Your task to perform on an android device: Open the phone app and click the voicemail tab. Image 0: 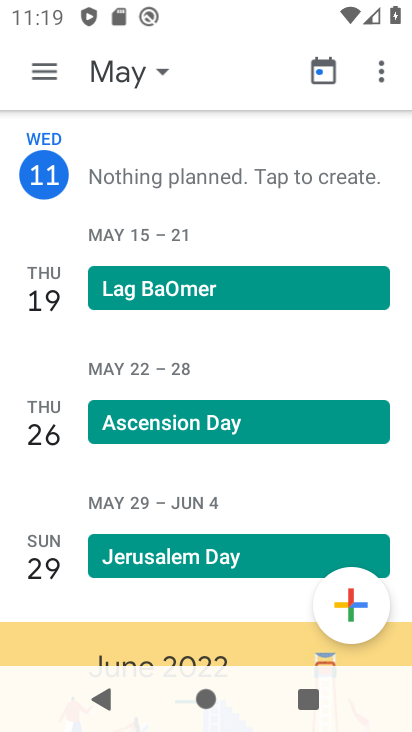
Step 0: press back button
Your task to perform on an android device: Open the phone app and click the voicemail tab. Image 1: 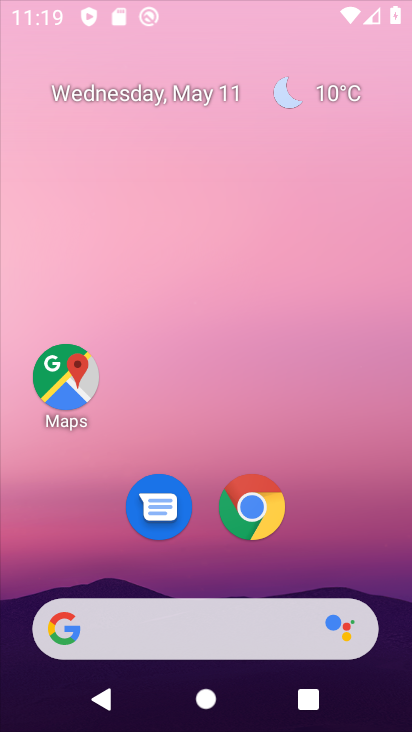
Step 1: press home button
Your task to perform on an android device: Open the phone app and click the voicemail tab. Image 2: 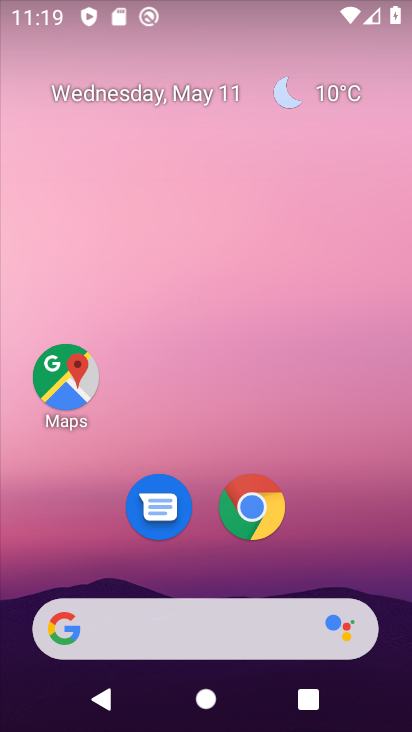
Step 2: drag from (167, 581) to (271, 118)
Your task to perform on an android device: Open the phone app and click the voicemail tab. Image 3: 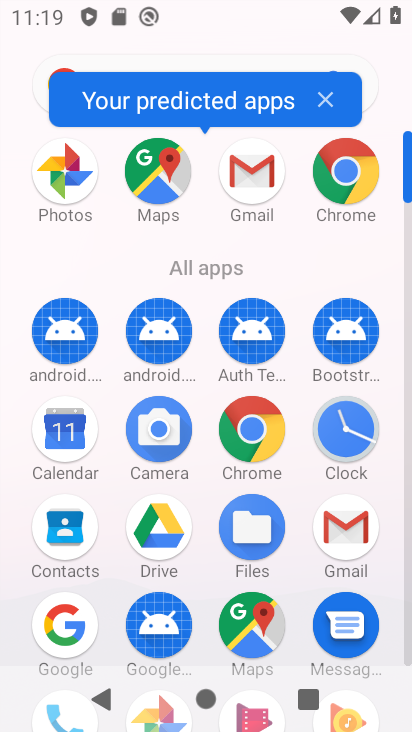
Step 3: drag from (267, 622) to (312, 437)
Your task to perform on an android device: Open the phone app and click the voicemail tab. Image 4: 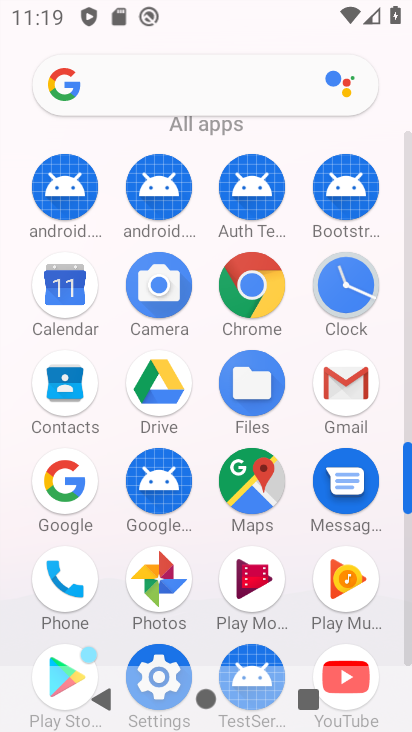
Step 4: click (65, 577)
Your task to perform on an android device: Open the phone app and click the voicemail tab. Image 5: 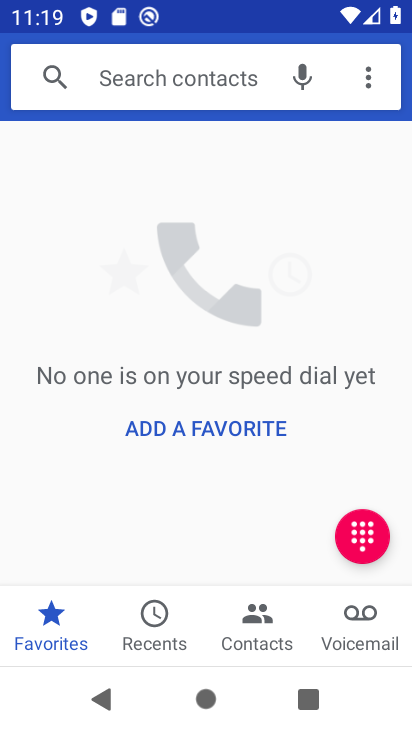
Step 5: click (369, 645)
Your task to perform on an android device: Open the phone app and click the voicemail tab. Image 6: 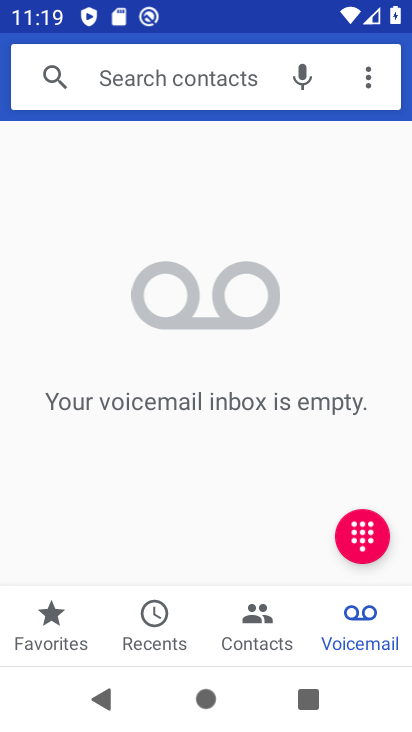
Step 6: task complete